Your task to perform on an android device: set an alarm Image 0: 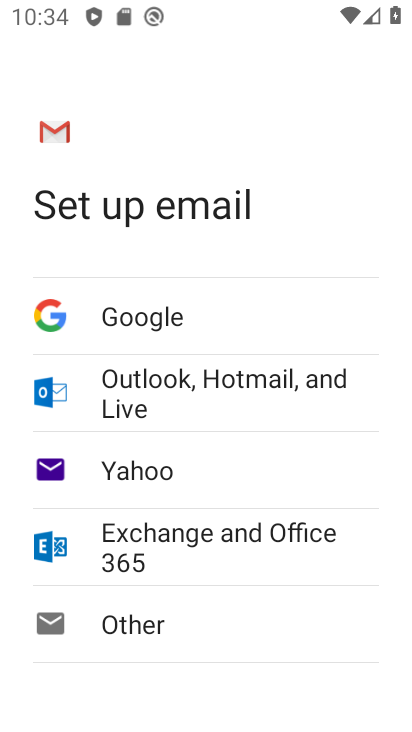
Step 0: press home button
Your task to perform on an android device: set an alarm Image 1: 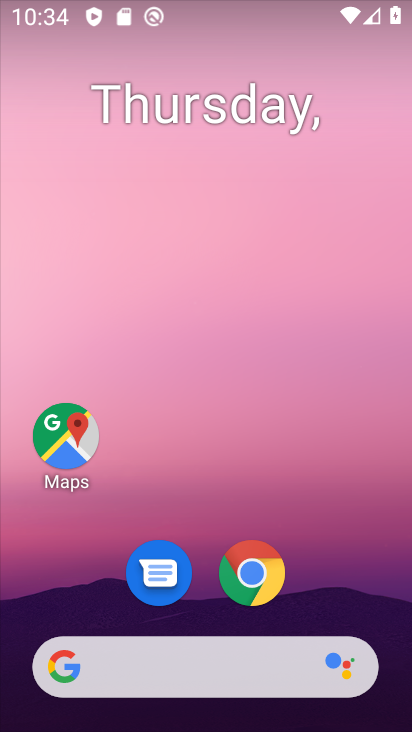
Step 1: drag from (333, 584) to (312, 238)
Your task to perform on an android device: set an alarm Image 2: 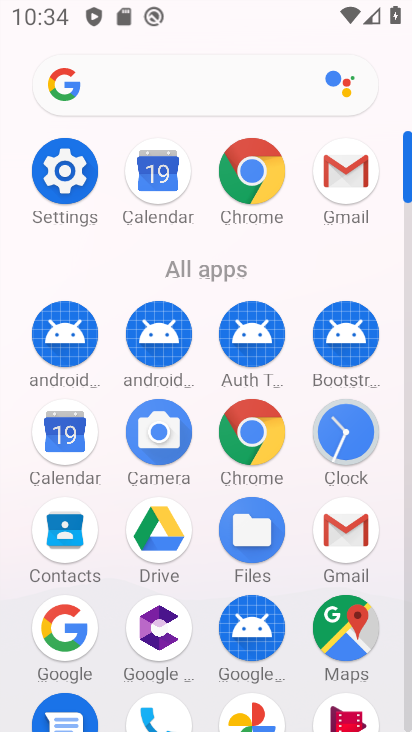
Step 2: click (334, 435)
Your task to perform on an android device: set an alarm Image 3: 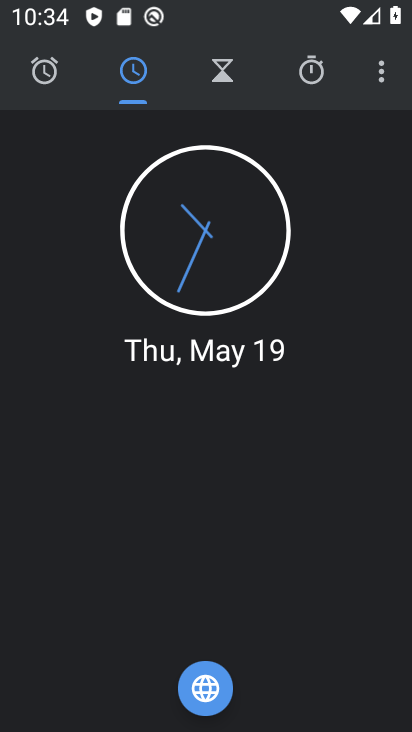
Step 3: click (57, 70)
Your task to perform on an android device: set an alarm Image 4: 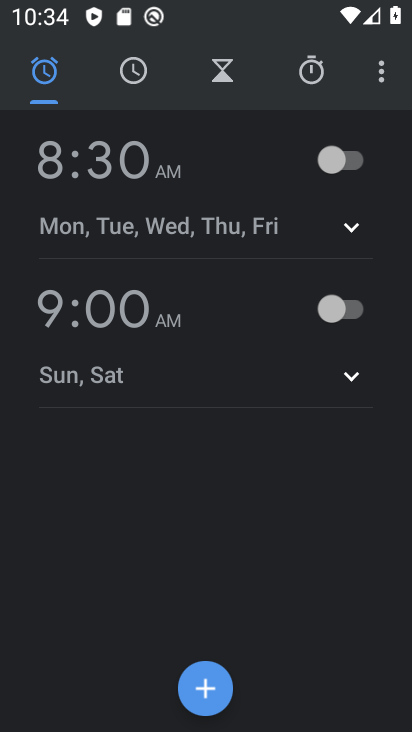
Step 4: click (224, 697)
Your task to perform on an android device: set an alarm Image 5: 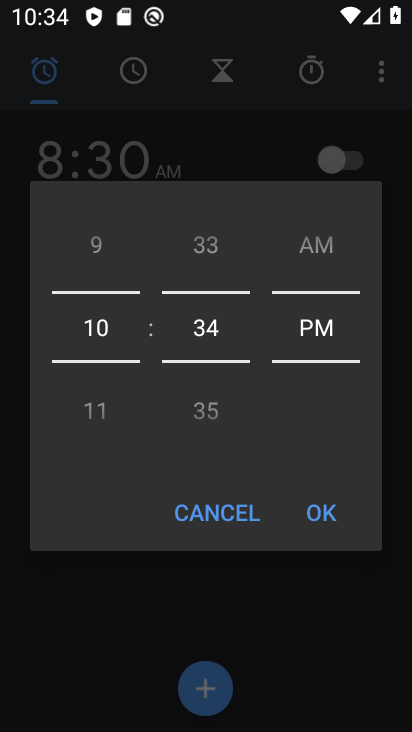
Step 5: click (336, 526)
Your task to perform on an android device: set an alarm Image 6: 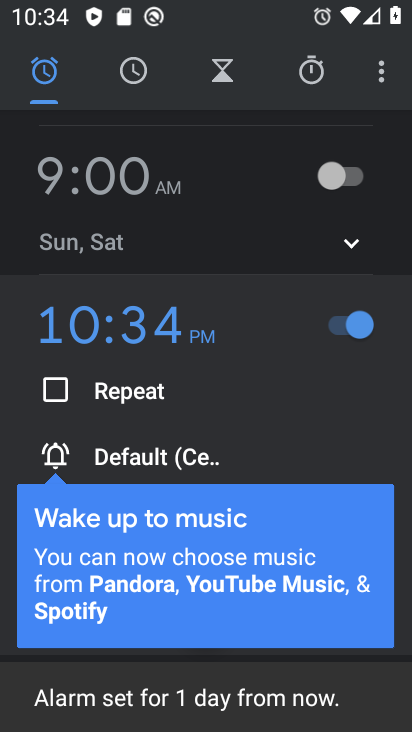
Step 6: task complete